Your task to perform on an android device: toggle show notifications on the lock screen Image 0: 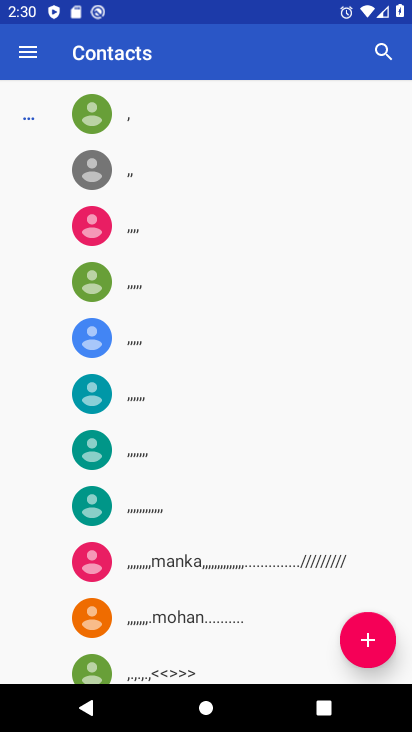
Step 0: press home button
Your task to perform on an android device: toggle show notifications on the lock screen Image 1: 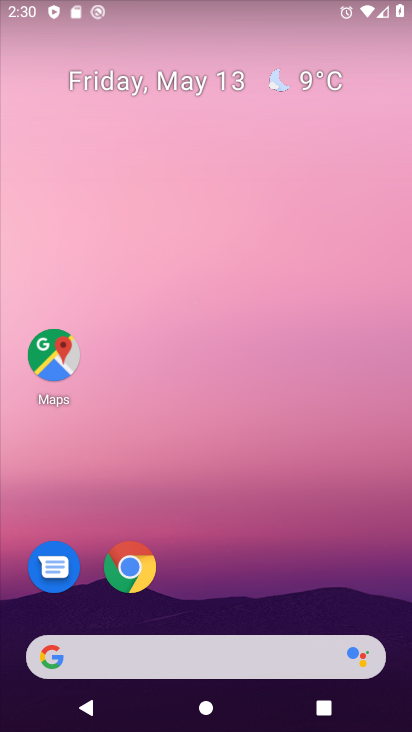
Step 1: drag from (200, 606) to (234, 58)
Your task to perform on an android device: toggle show notifications on the lock screen Image 2: 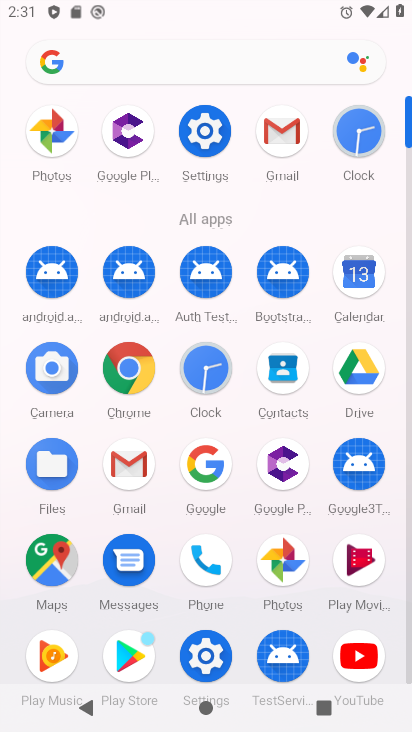
Step 2: click (200, 647)
Your task to perform on an android device: toggle show notifications on the lock screen Image 3: 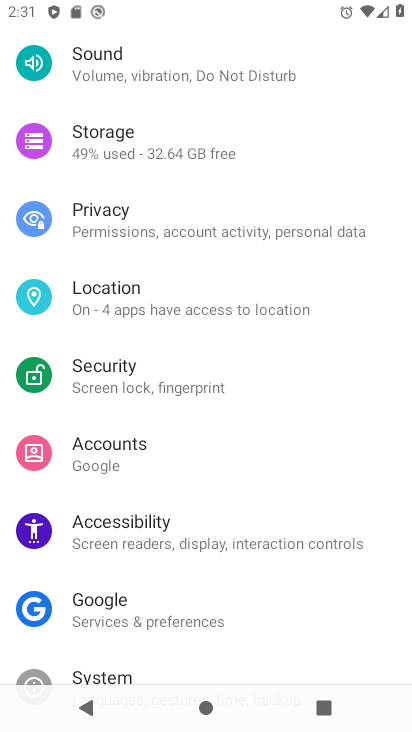
Step 3: drag from (157, 147) to (103, 603)
Your task to perform on an android device: toggle show notifications on the lock screen Image 4: 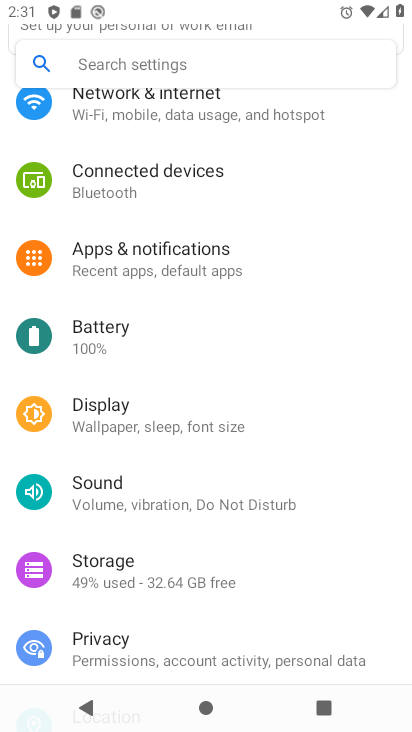
Step 4: drag from (209, 156) to (187, 524)
Your task to perform on an android device: toggle show notifications on the lock screen Image 5: 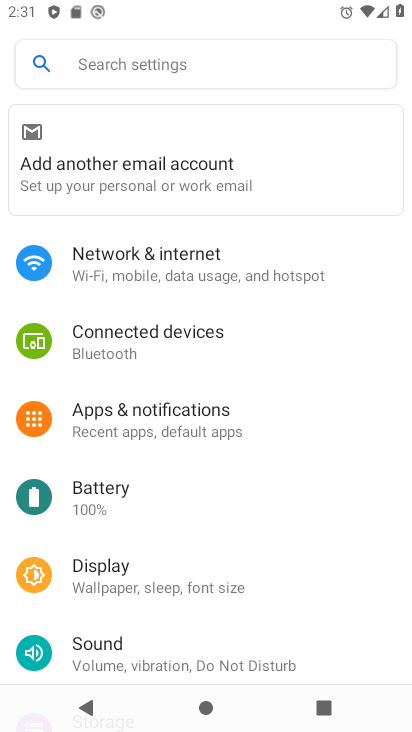
Step 5: click (190, 413)
Your task to perform on an android device: toggle show notifications on the lock screen Image 6: 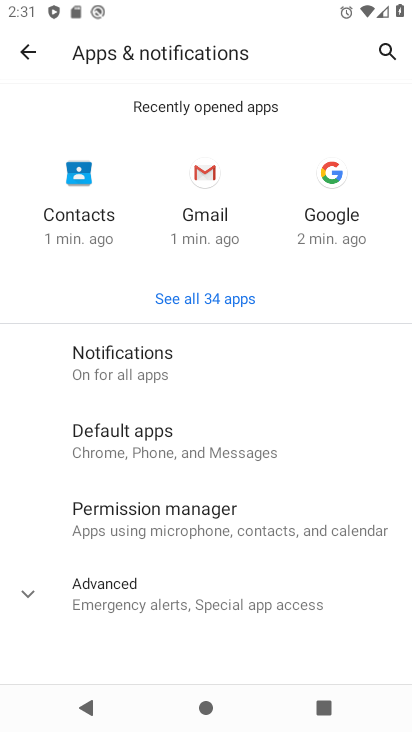
Step 6: click (172, 366)
Your task to perform on an android device: toggle show notifications on the lock screen Image 7: 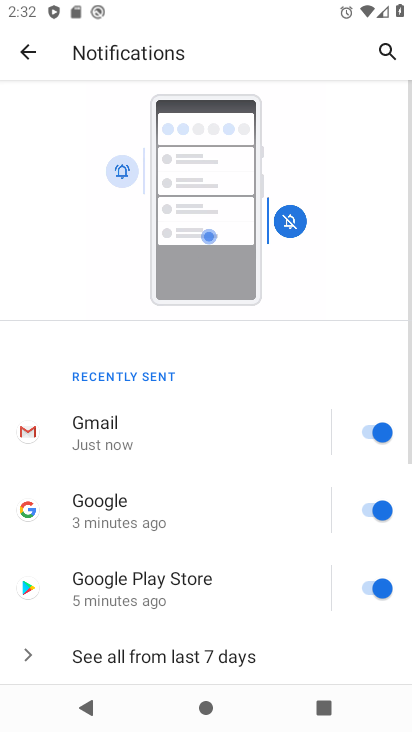
Step 7: drag from (157, 581) to (268, 201)
Your task to perform on an android device: toggle show notifications on the lock screen Image 8: 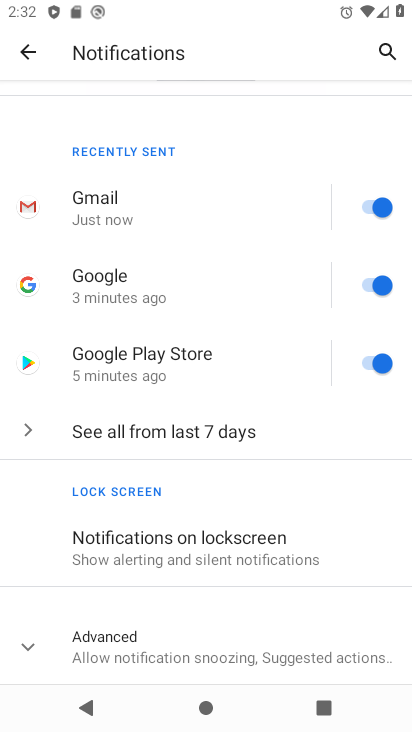
Step 8: click (150, 661)
Your task to perform on an android device: toggle show notifications on the lock screen Image 9: 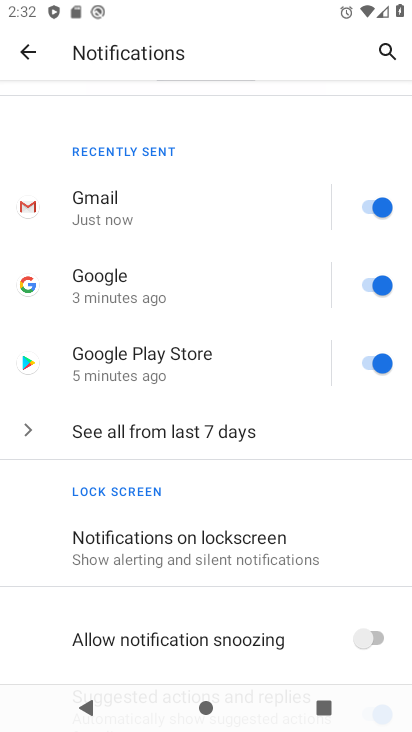
Step 9: drag from (194, 594) to (270, 259)
Your task to perform on an android device: toggle show notifications on the lock screen Image 10: 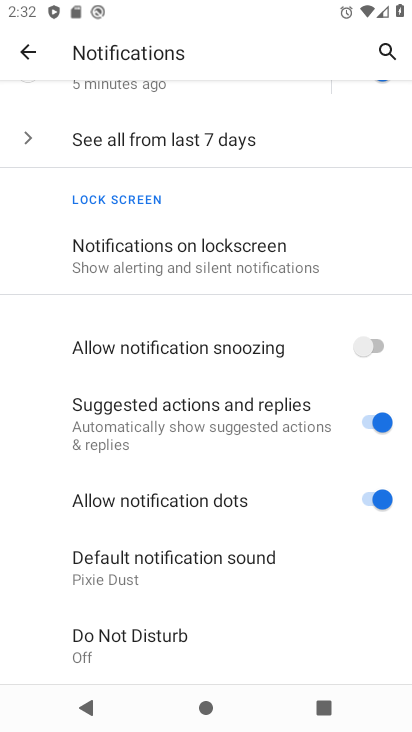
Step 10: click (384, 507)
Your task to perform on an android device: toggle show notifications on the lock screen Image 11: 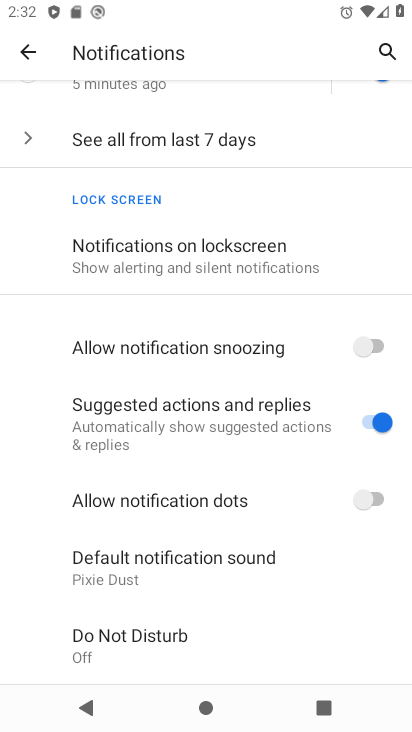
Step 11: task complete